Your task to perform on an android device: refresh tabs in the chrome app Image 0: 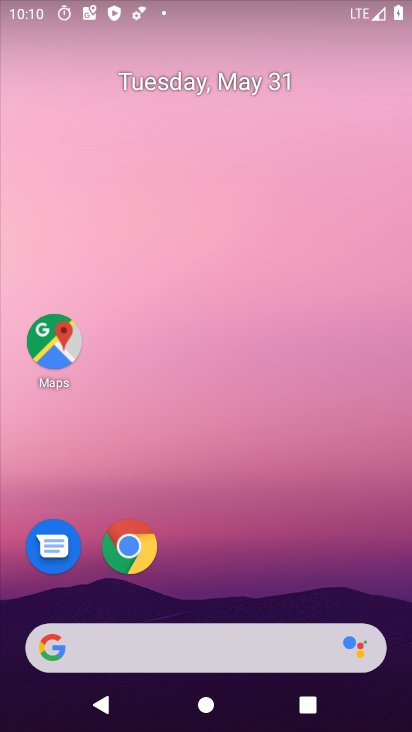
Step 0: click (123, 541)
Your task to perform on an android device: refresh tabs in the chrome app Image 1: 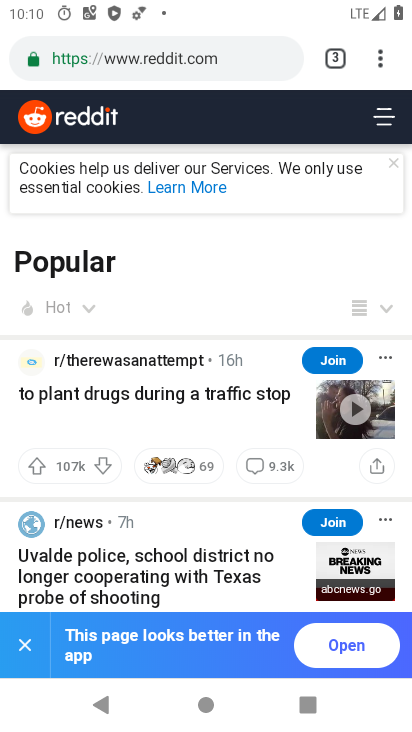
Step 1: click (378, 48)
Your task to perform on an android device: refresh tabs in the chrome app Image 2: 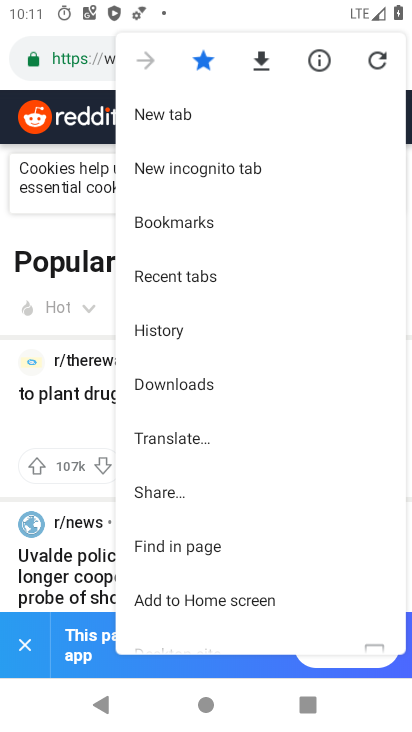
Step 2: click (385, 49)
Your task to perform on an android device: refresh tabs in the chrome app Image 3: 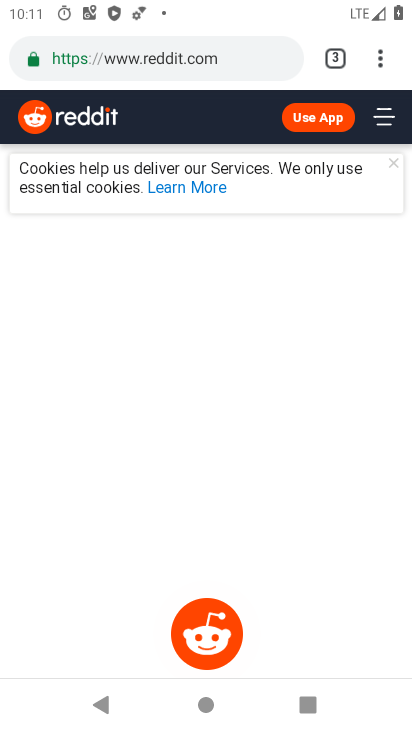
Step 3: click (382, 46)
Your task to perform on an android device: refresh tabs in the chrome app Image 4: 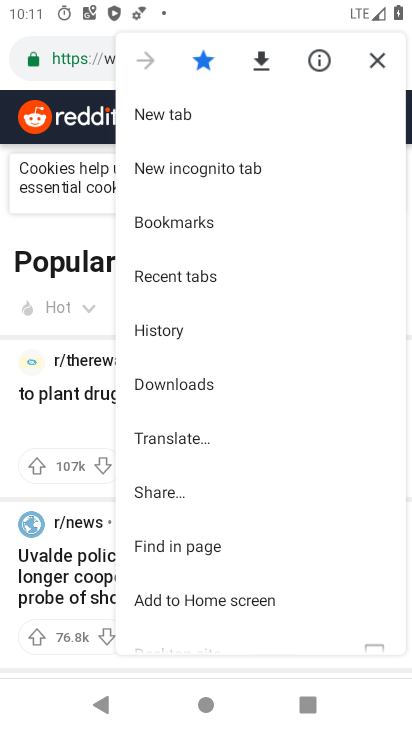
Step 4: task complete